Your task to perform on an android device: Open the map Image 0: 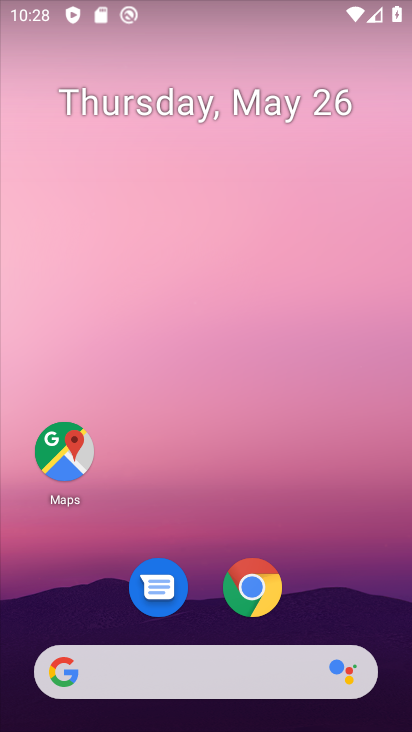
Step 0: drag from (201, 711) to (309, 249)
Your task to perform on an android device: Open the map Image 1: 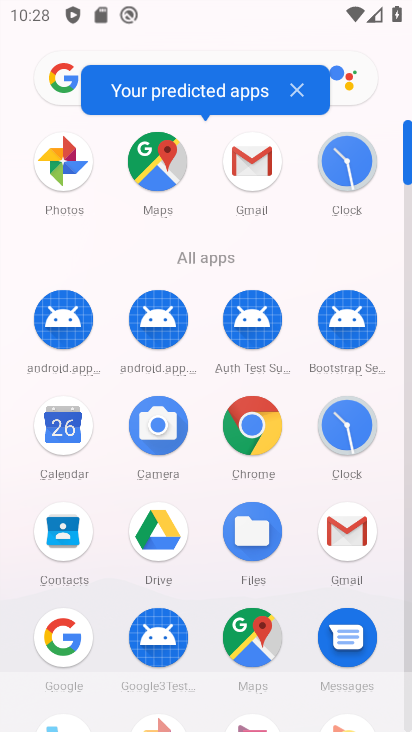
Step 1: click (243, 634)
Your task to perform on an android device: Open the map Image 2: 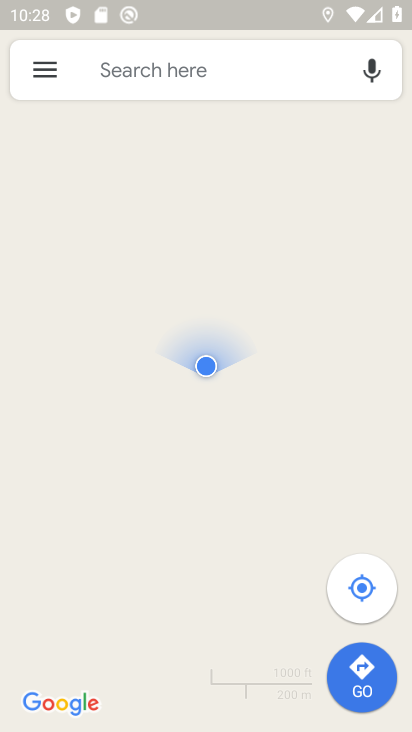
Step 2: click (41, 87)
Your task to perform on an android device: Open the map Image 3: 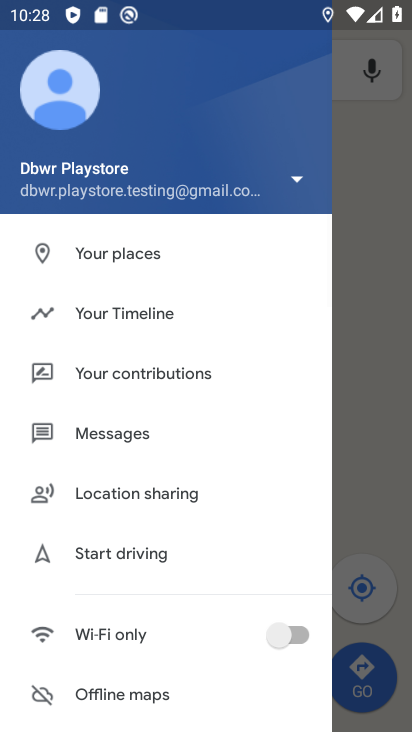
Step 3: drag from (146, 495) to (208, 225)
Your task to perform on an android device: Open the map Image 4: 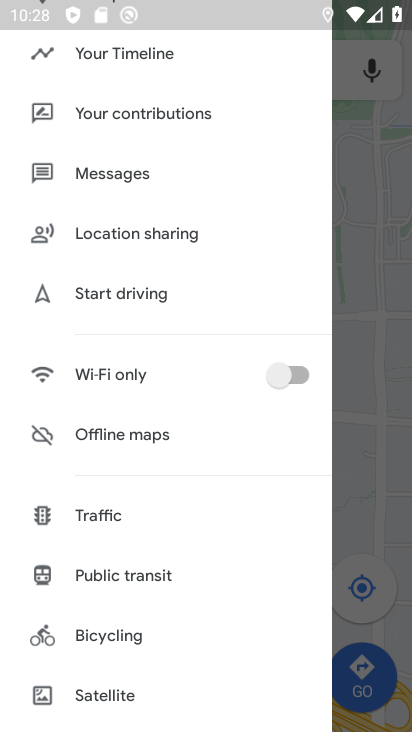
Step 4: click (360, 358)
Your task to perform on an android device: Open the map Image 5: 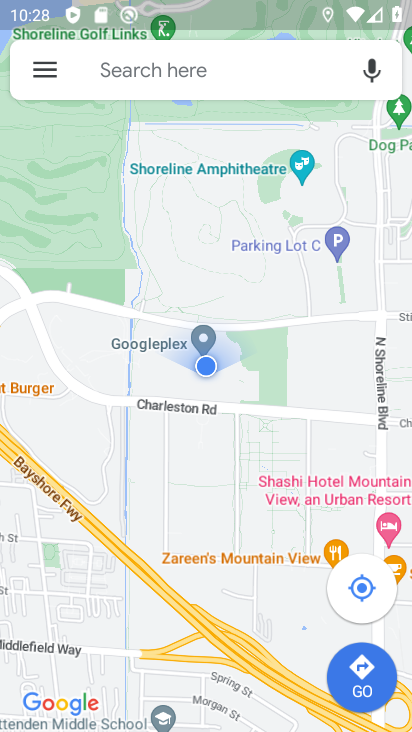
Step 5: task complete